Your task to perform on an android device: Go to Maps Image 0: 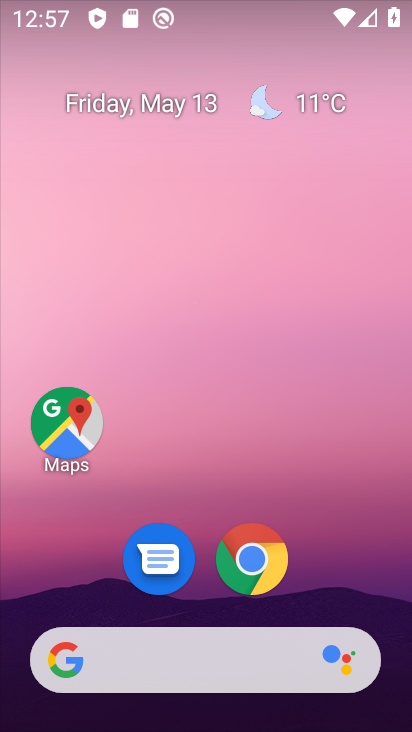
Step 0: click (69, 405)
Your task to perform on an android device: Go to Maps Image 1: 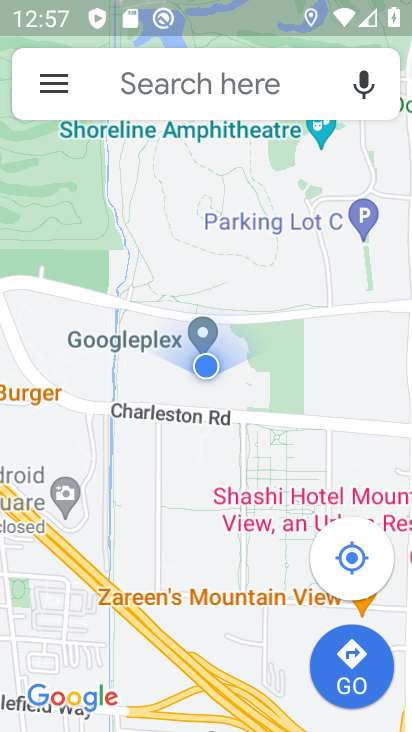
Step 1: task complete